Your task to perform on an android device: Do I have any events tomorrow? Image 0: 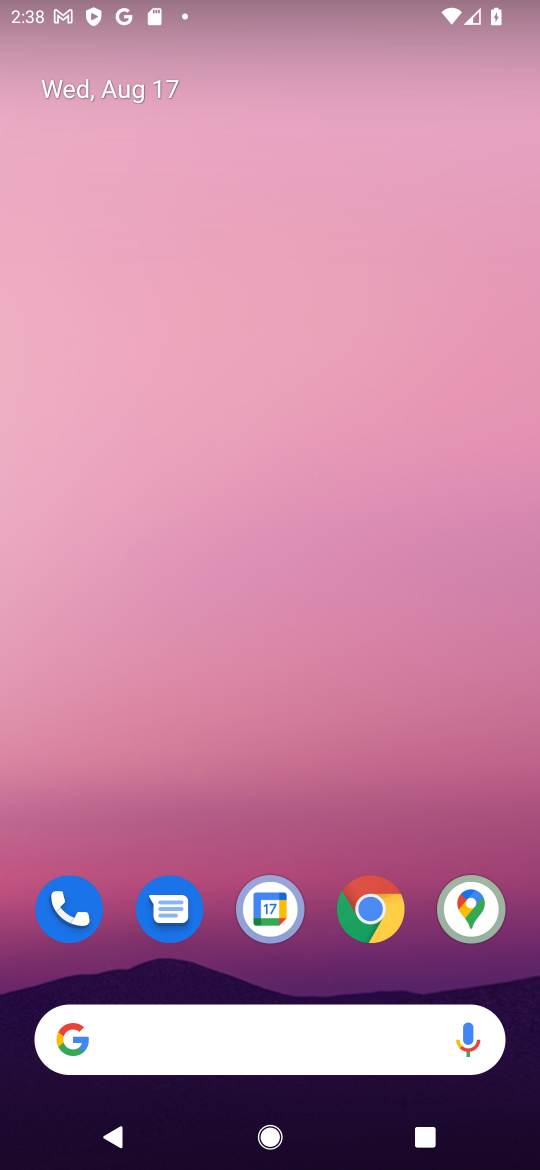
Step 0: drag from (298, 736) to (445, 40)
Your task to perform on an android device: Do I have any events tomorrow? Image 1: 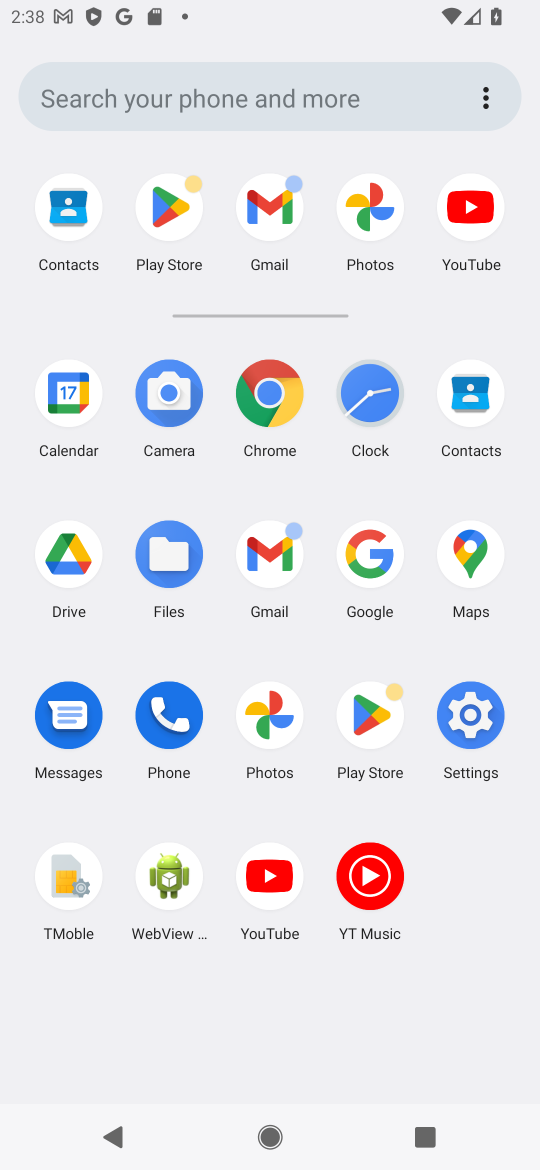
Step 1: task complete